Your task to perform on an android device: Open the map Image 0: 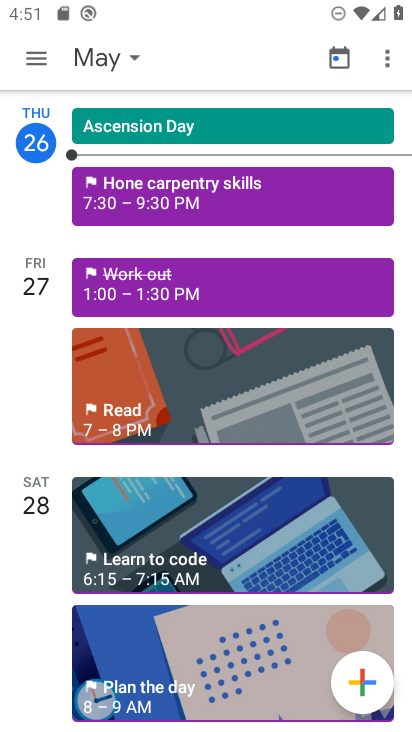
Step 0: press home button
Your task to perform on an android device: Open the map Image 1: 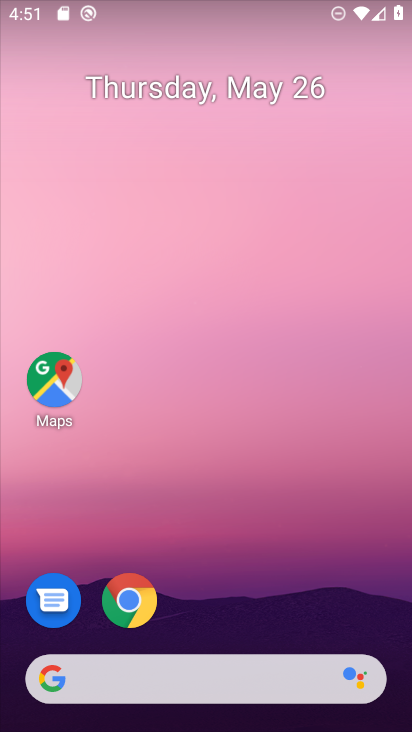
Step 1: click (51, 399)
Your task to perform on an android device: Open the map Image 2: 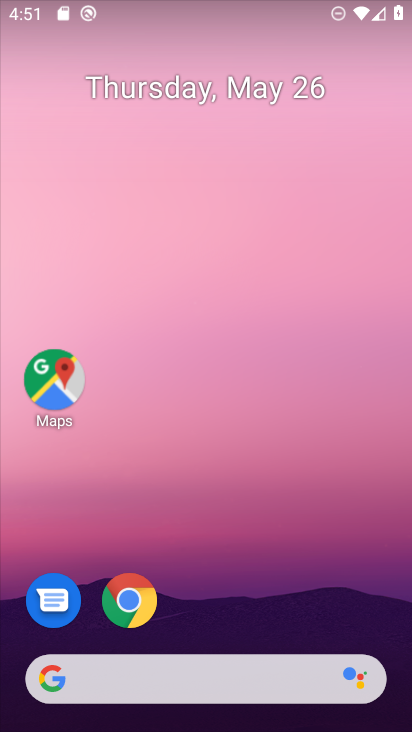
Step 2: click (51, 402)
Your task to perform on an android device: Open the map Image 3: 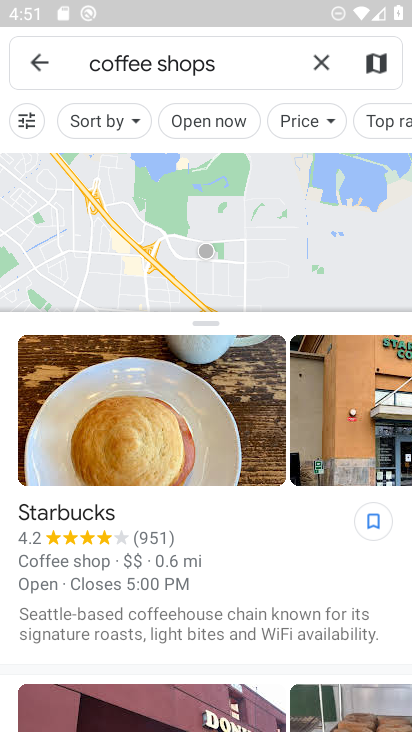
Step 3: task complete